Your task to perform on an android device: find photos in the google photos app Image 0: 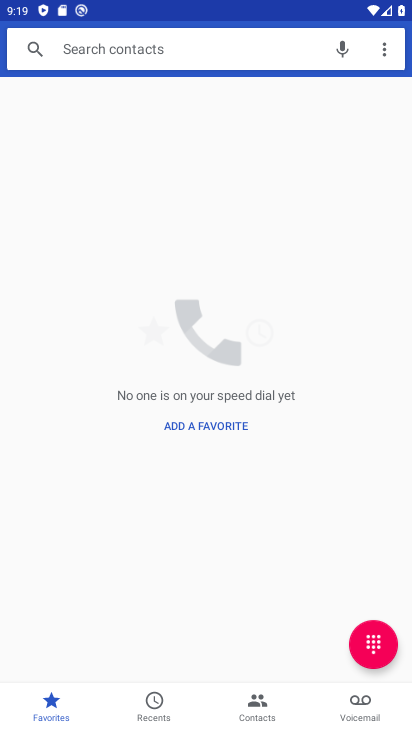
Step 0: press home button
Your task to perform on an android device: find photos in the google photos app Image 1: 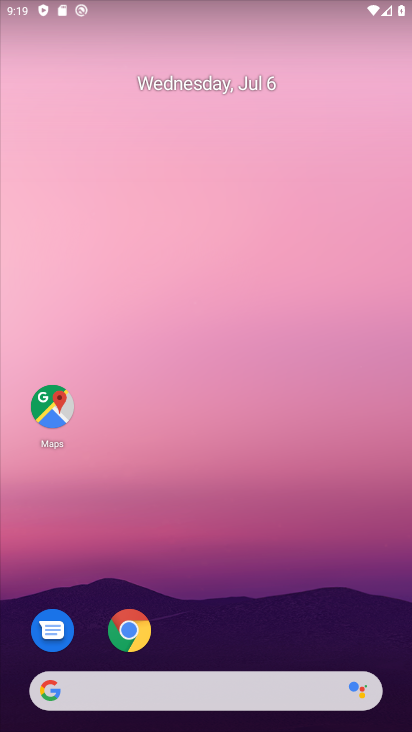
Step 1: drag from (379, 649) to (337, 131)
Your task to perform on an android device: find photos in the google photos app Image 2: 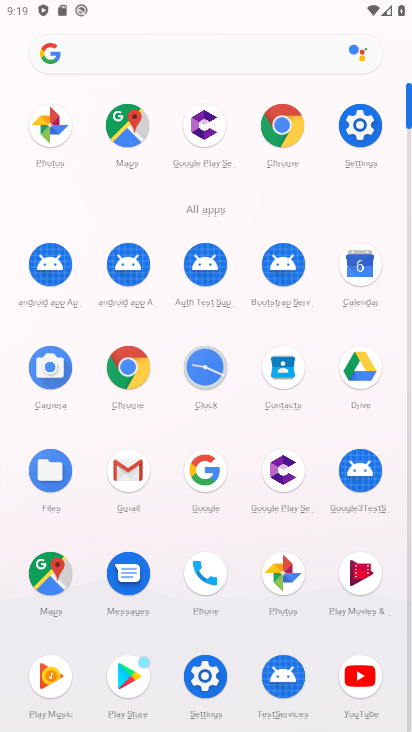
Step 2: click (283, 571)
Your task to perform on an android device: find photos in the google photos app Image 3: 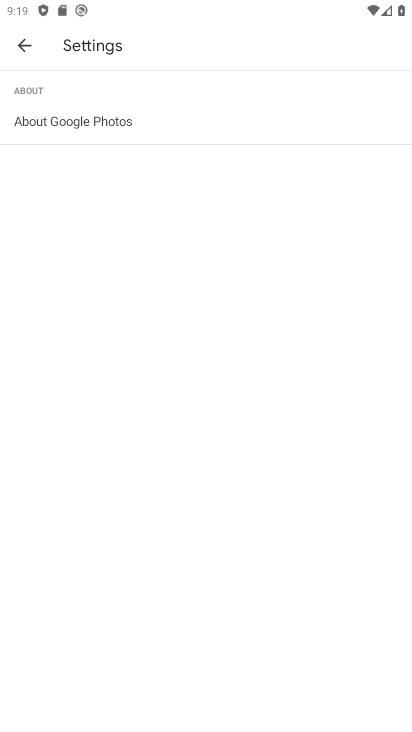
Step 3: press back button
Your task to perform on an android device: find photos in the google photos app Image 4: 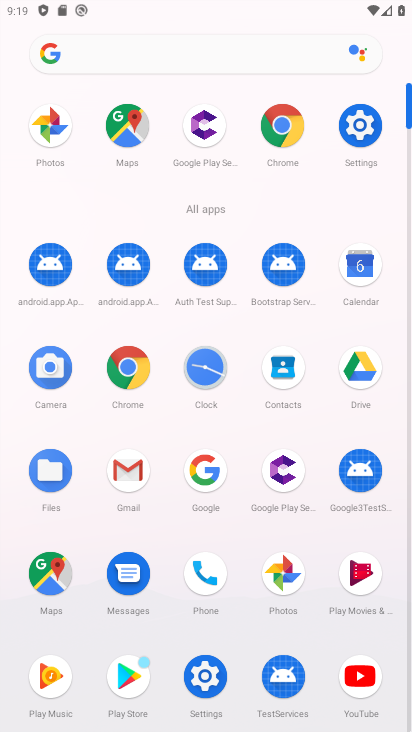
Step 4: click (281, 570)
Your task to perform on an android device: find photos in the google photos app Image 5: 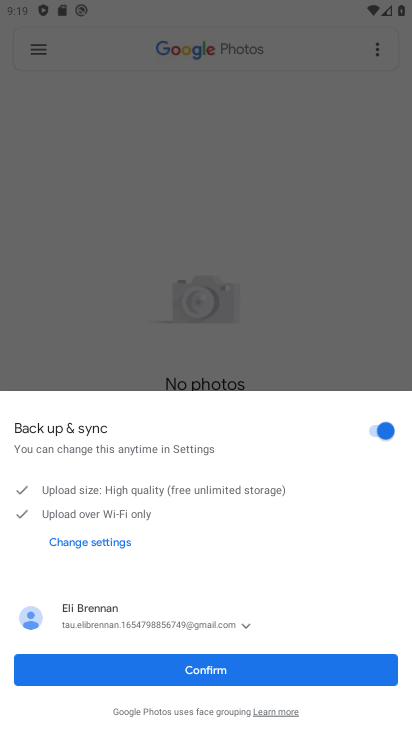
Step 5: click (208, 668)
Your task to perform on an android device: find photos in the google photos app Image 6: 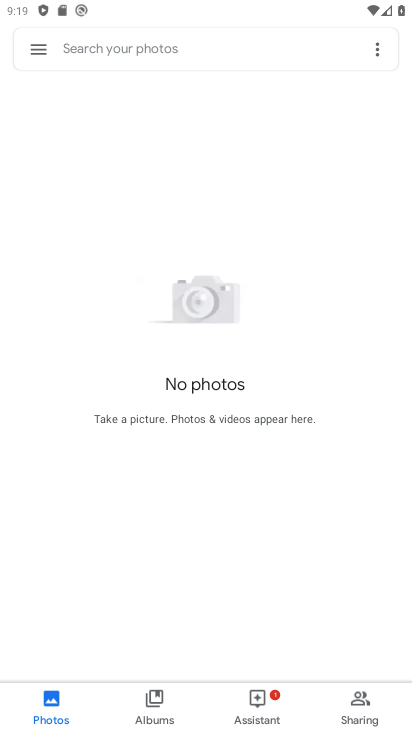
Step 6: task complete